Your task to perform on an android device: move an email to a new category in the gmail app Image 0: 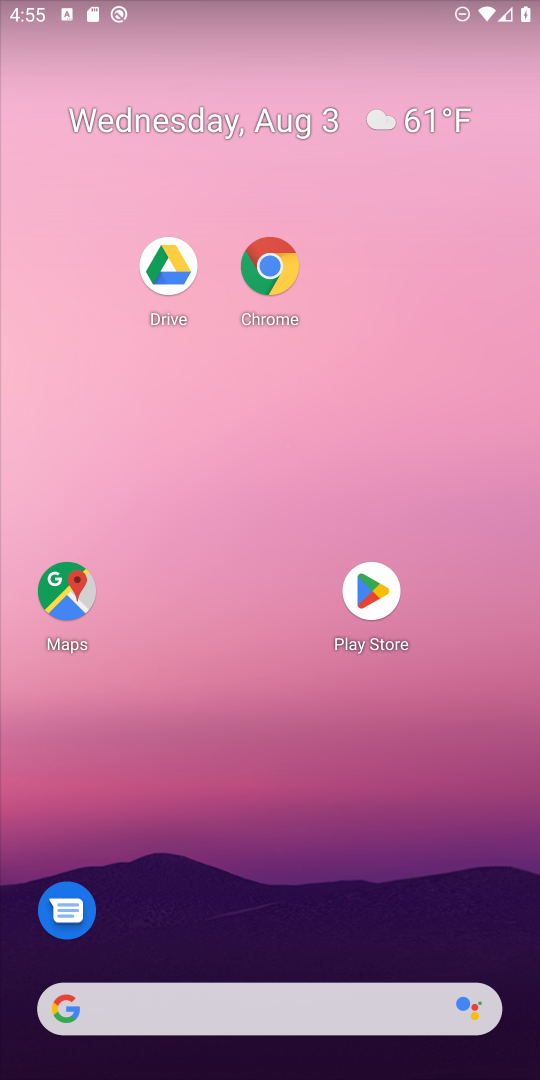
Step 0: drag from (378, 805) to (432, 22)
Your task to perform on an android device: move an email to a new category in the gmail app Image 1: 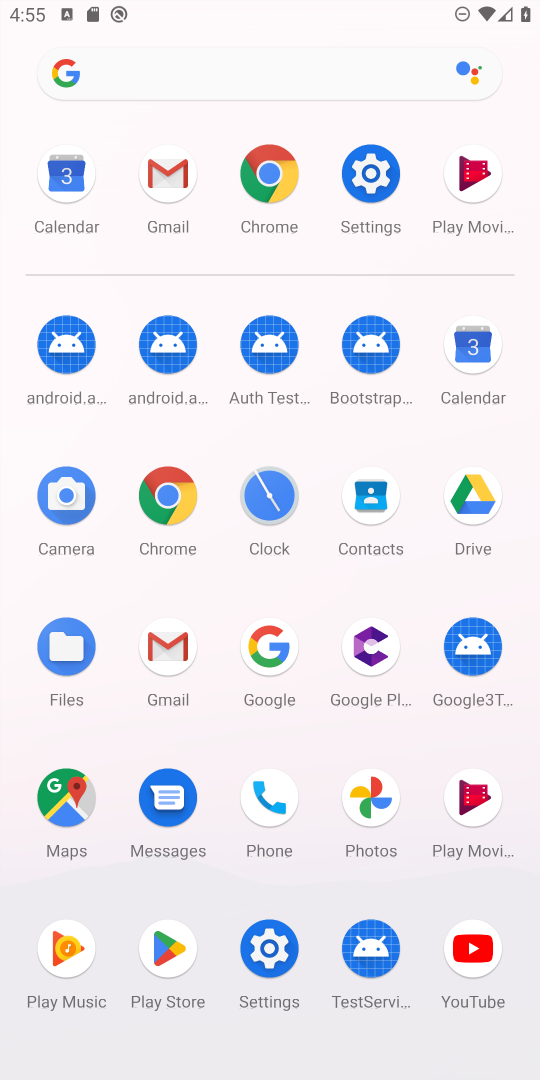
Step 1: click (176, 640)
Your task to perform on an android device: move an email to a new category in the gmail app Image 2: 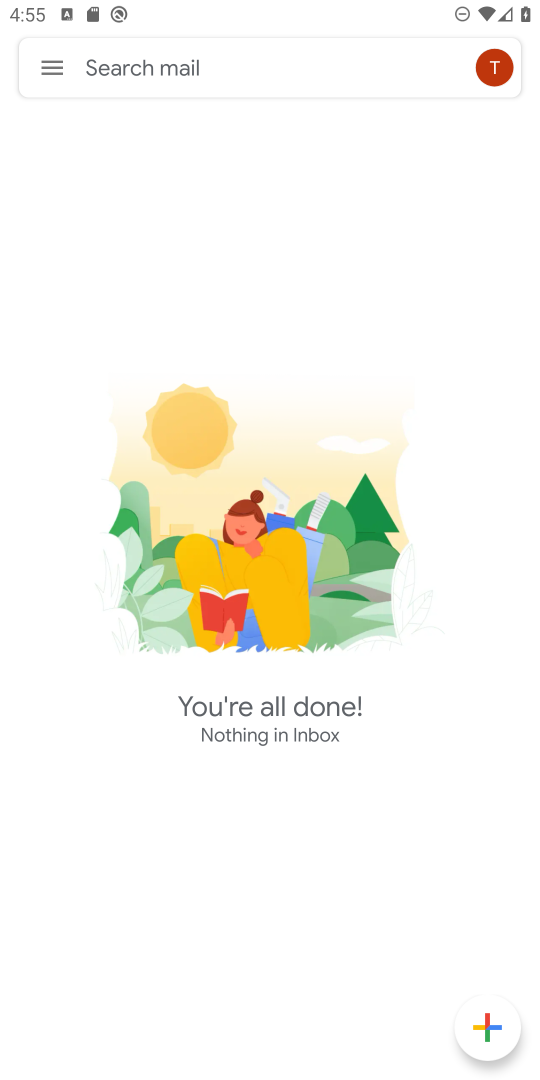
Step 2: task complete